Your task to perform on an android device: Go to display settings Image 0: 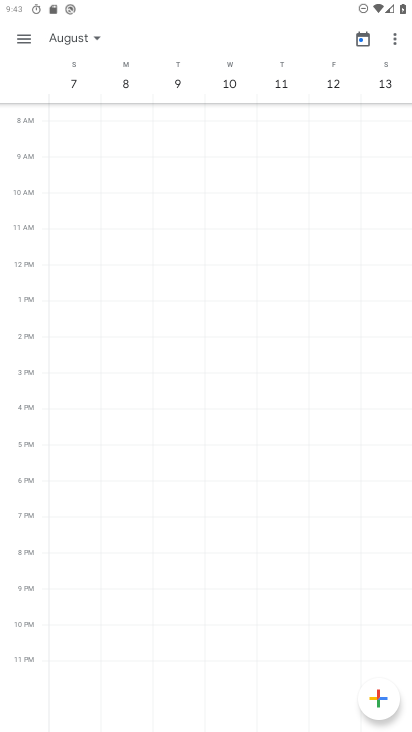
Step 0: press home button
Your task to perform on an android device: Go to display settings Image 1: 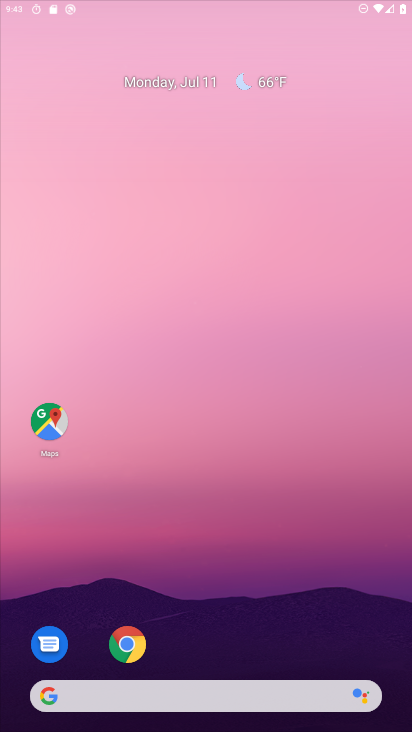
Step 1: drag from (308, 615) to (288, 99)
Your task to perform on an android device: Go to display settings Image 2: 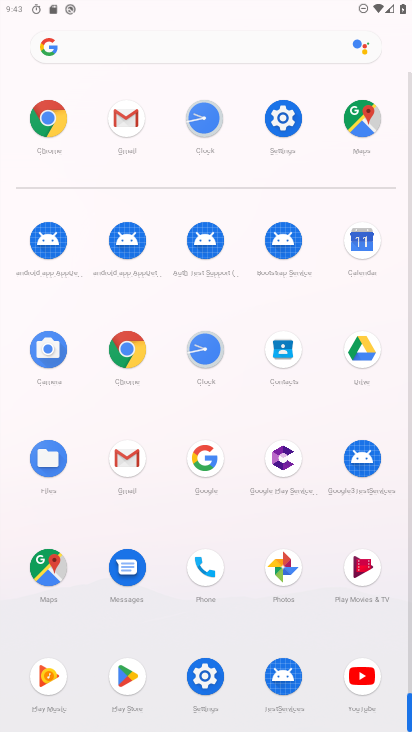
Step 2: click (283, 127)
Your task to perform on an android device: Go to display settings Image 3: 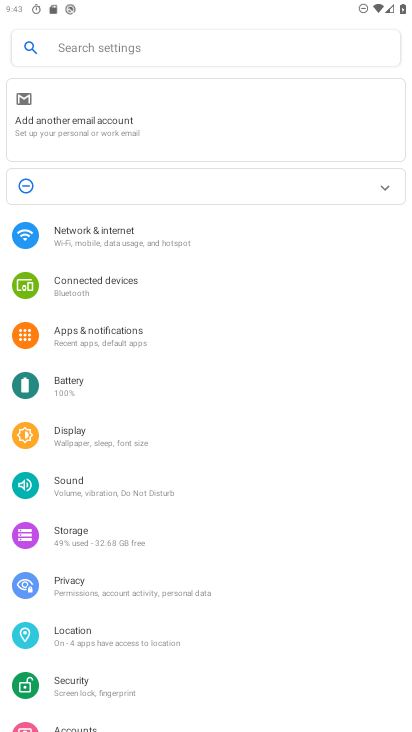
Step 3: click (78, 437)
Your task to perform on an android device: Go to display settings Image 4: 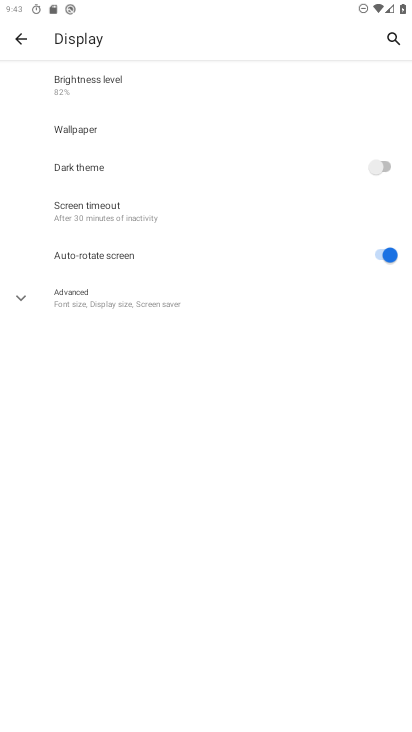
Step 4: task complete